Your task to perform on an android device: delete the emails in spam in the gmail app Image 0: 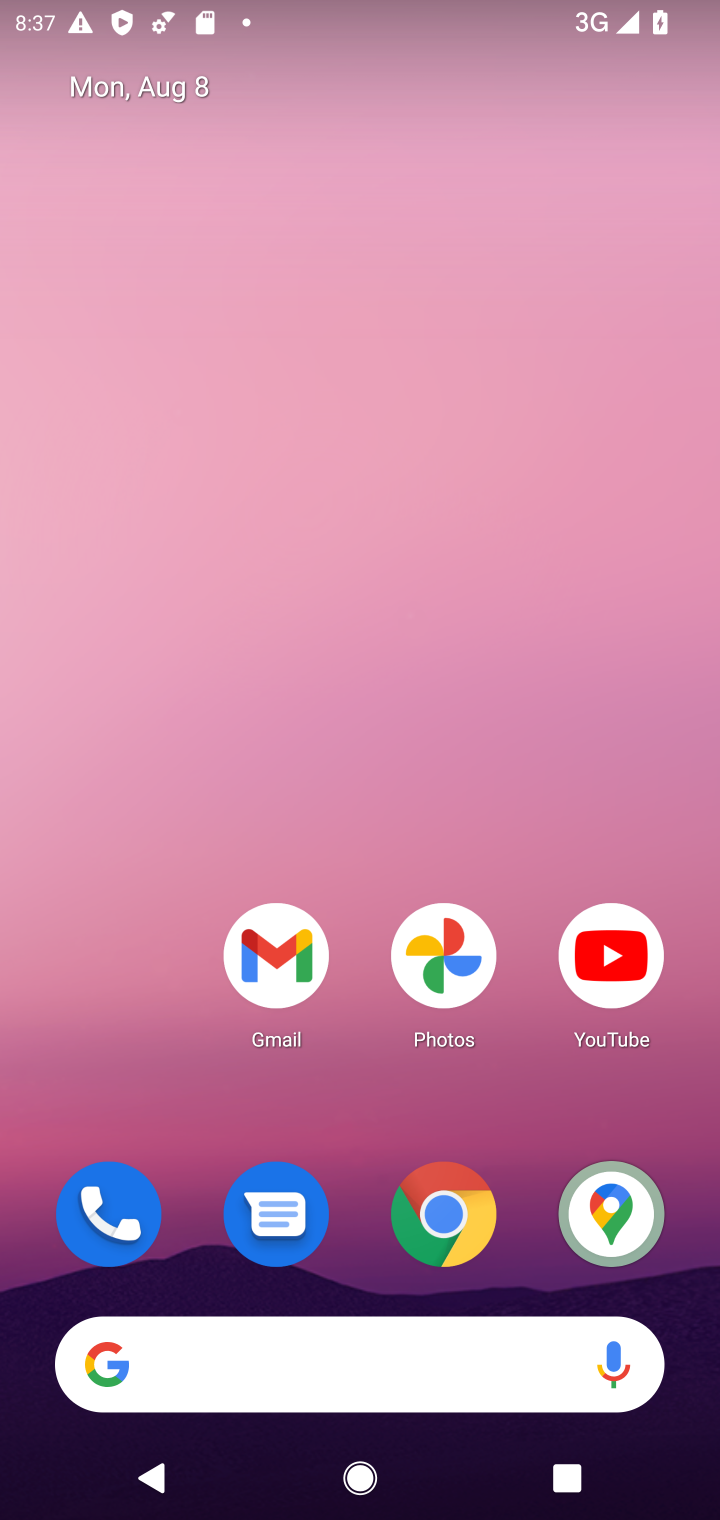
Step 0: click (293, 961)
Your task to perform on an android device: delete the emails in spam in the gmail app Image 1: 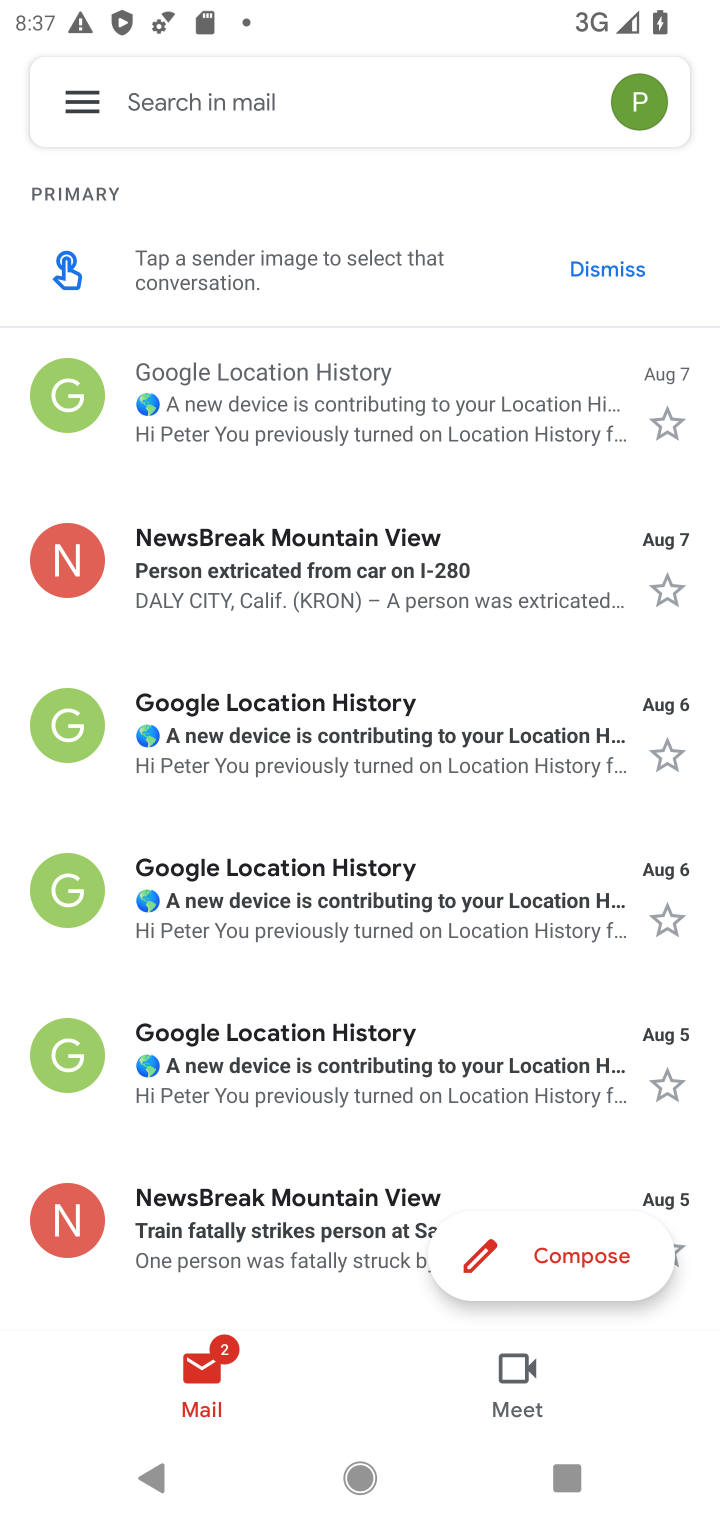
Step 1: click (87, 110)
Your task to perform on an android device: delete the emails in spam in the gmail app Image 2: 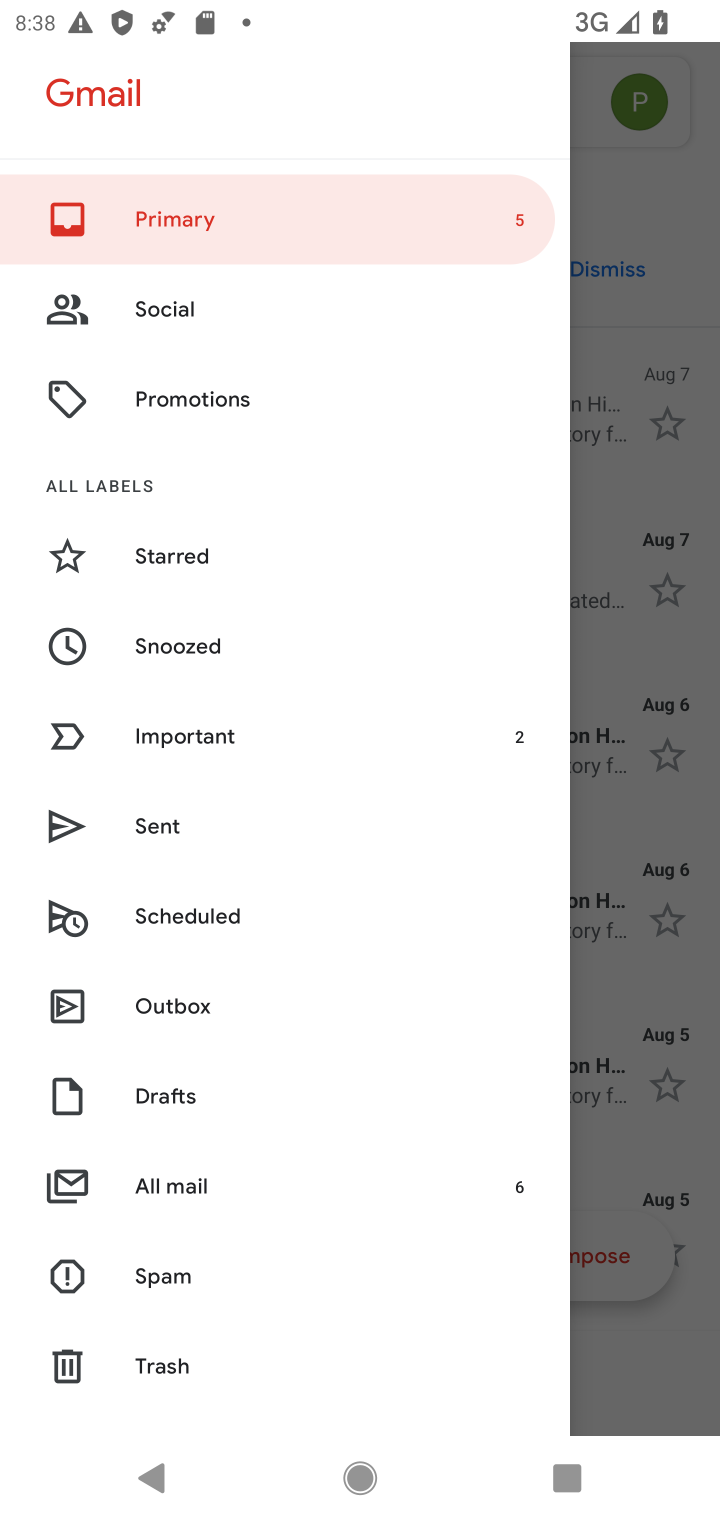
Step 2: click (172, 1276)
Your task to perform on an android device: delete the emails in spam in the gmail app Image 3: 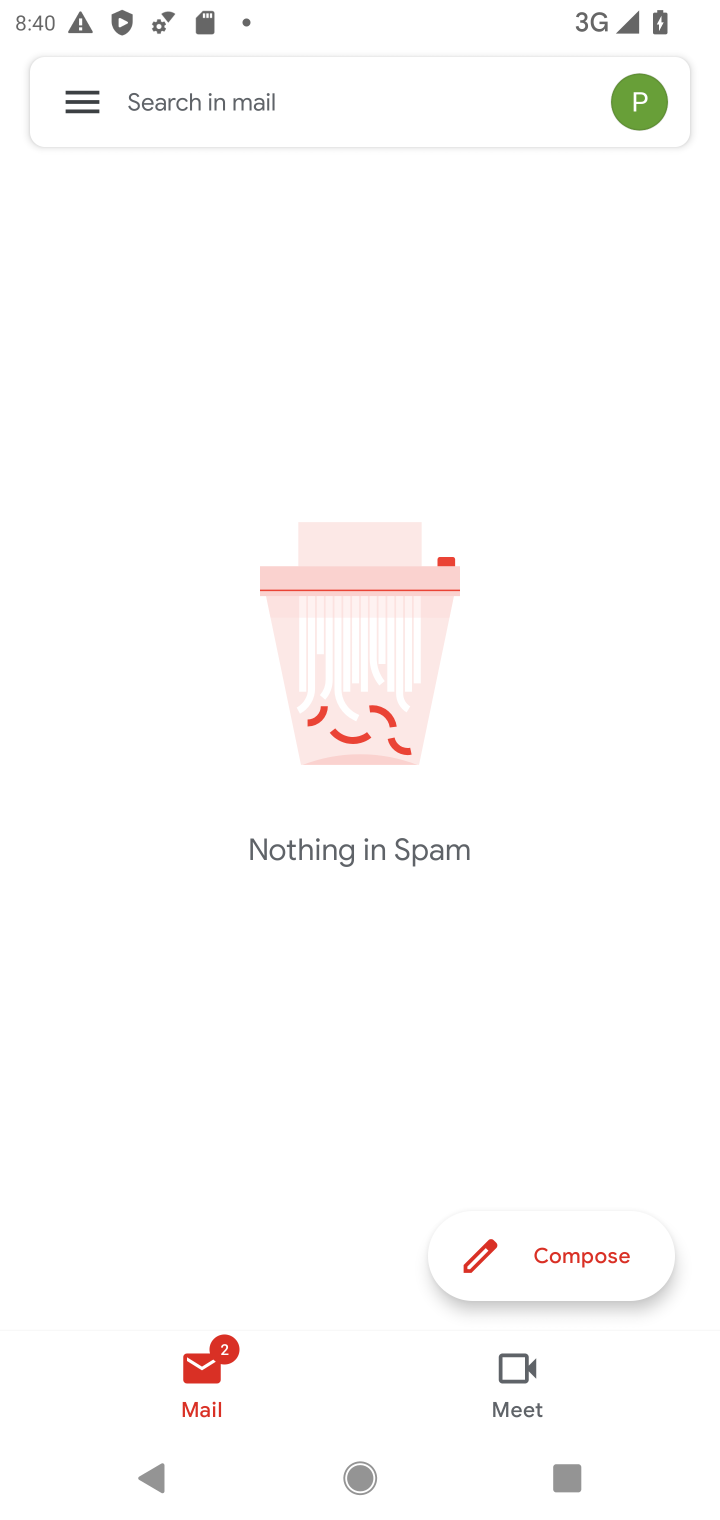
Step 3: task complete